Your task to perform on an android device: Open display settings Image 0: 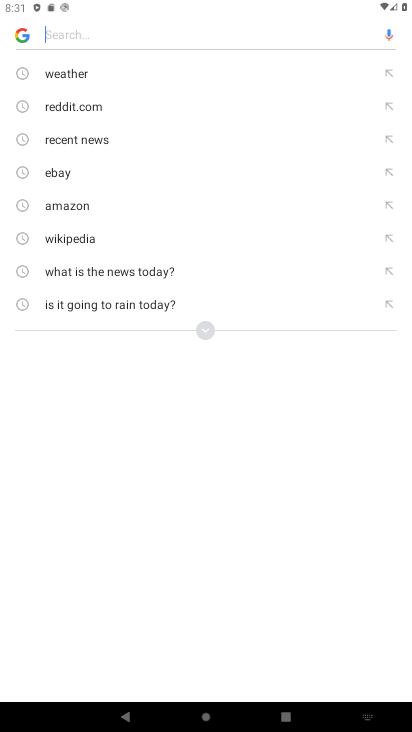
Step 0: press home button
Your task to perform on an android device: Open display settings Image 1: 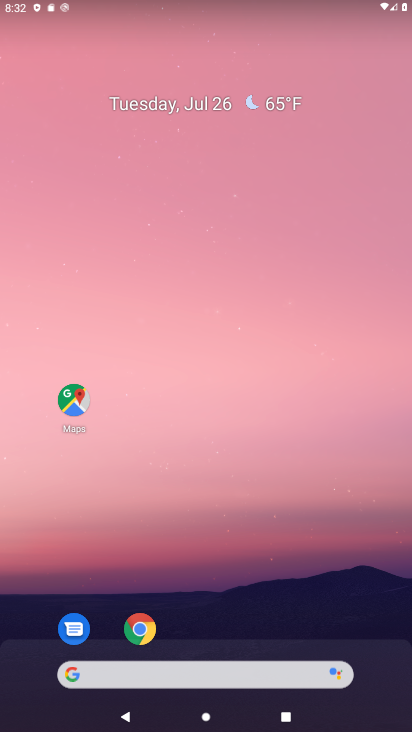
Step 1: drag from (257, 601) to (235, 132)
Your task to perform on an android device: Open display settings Image 2: 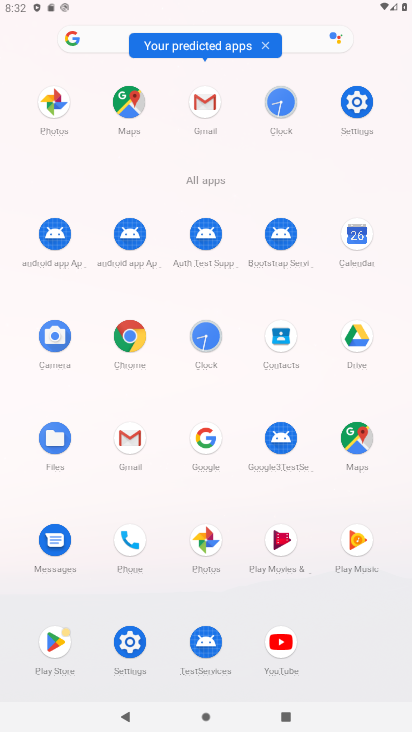
Step 2: click (353, 101)
Your task to perform on an android device: Open display settings Image 3: 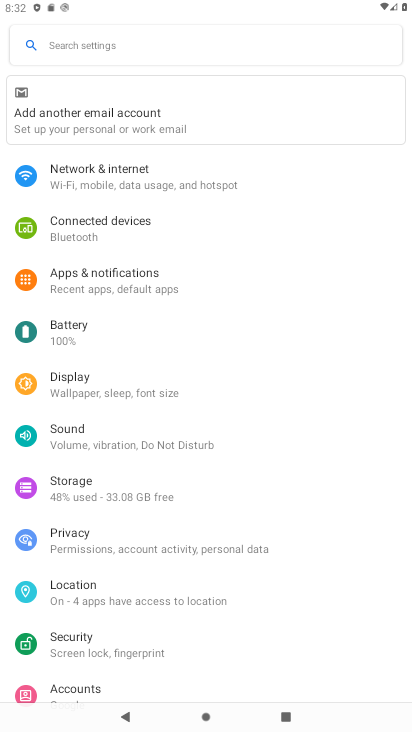
Step 3: click (63, 372)
Your task to perform on an android device: Open display settings Image 4: 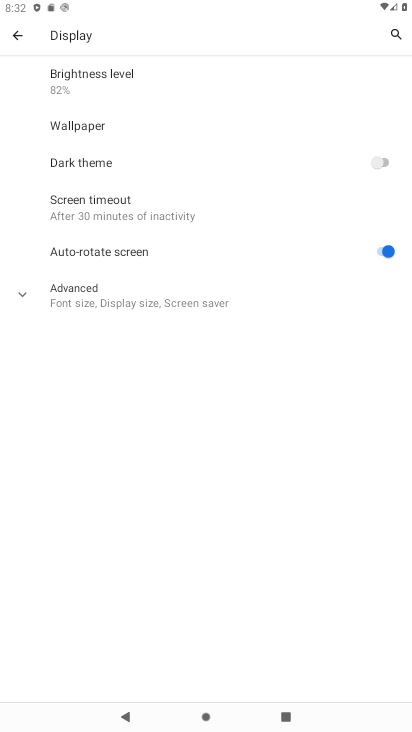
Step 4: task complete